Your task to perform on an android device: open device folders in google photos Image 0: 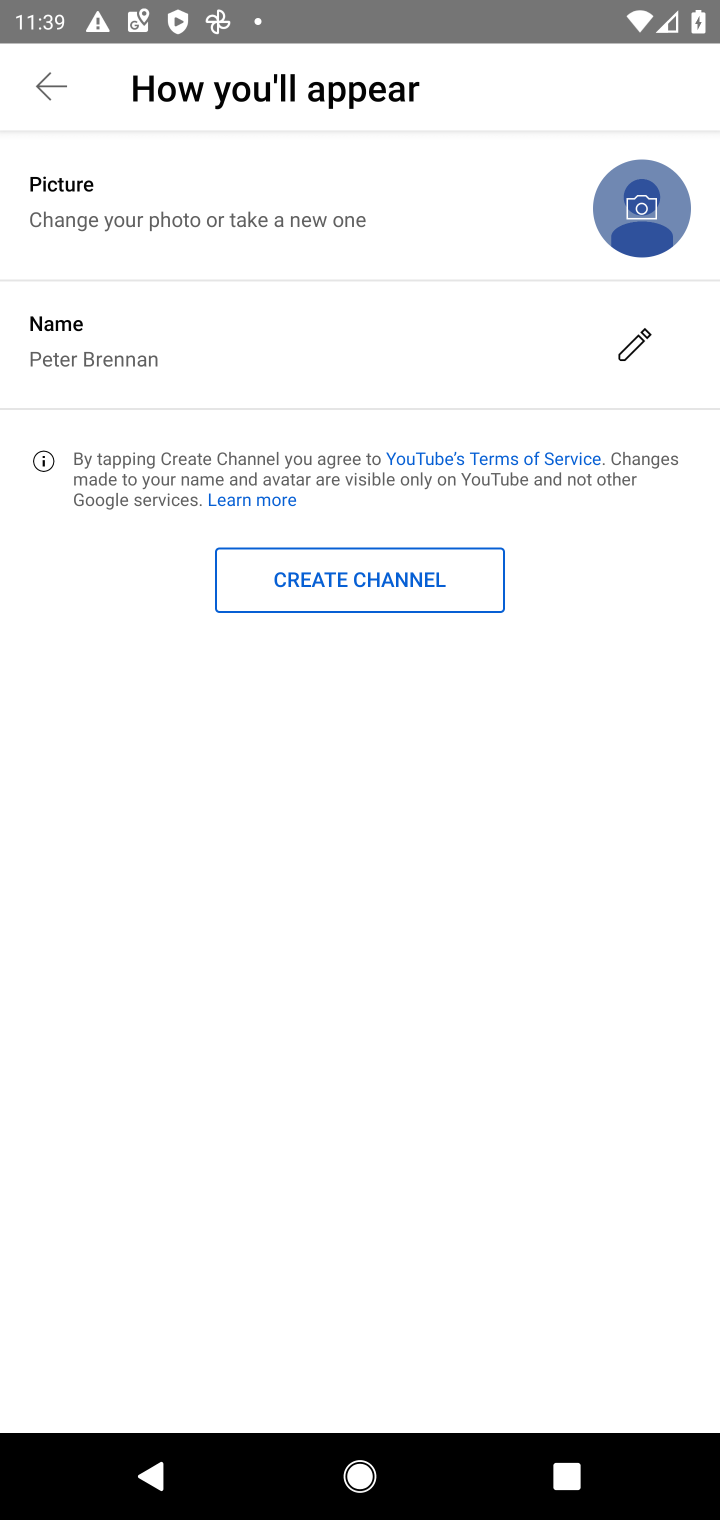
Step 0: press home button
Your task to perform on an android device: open device folders in google photos Image 1: 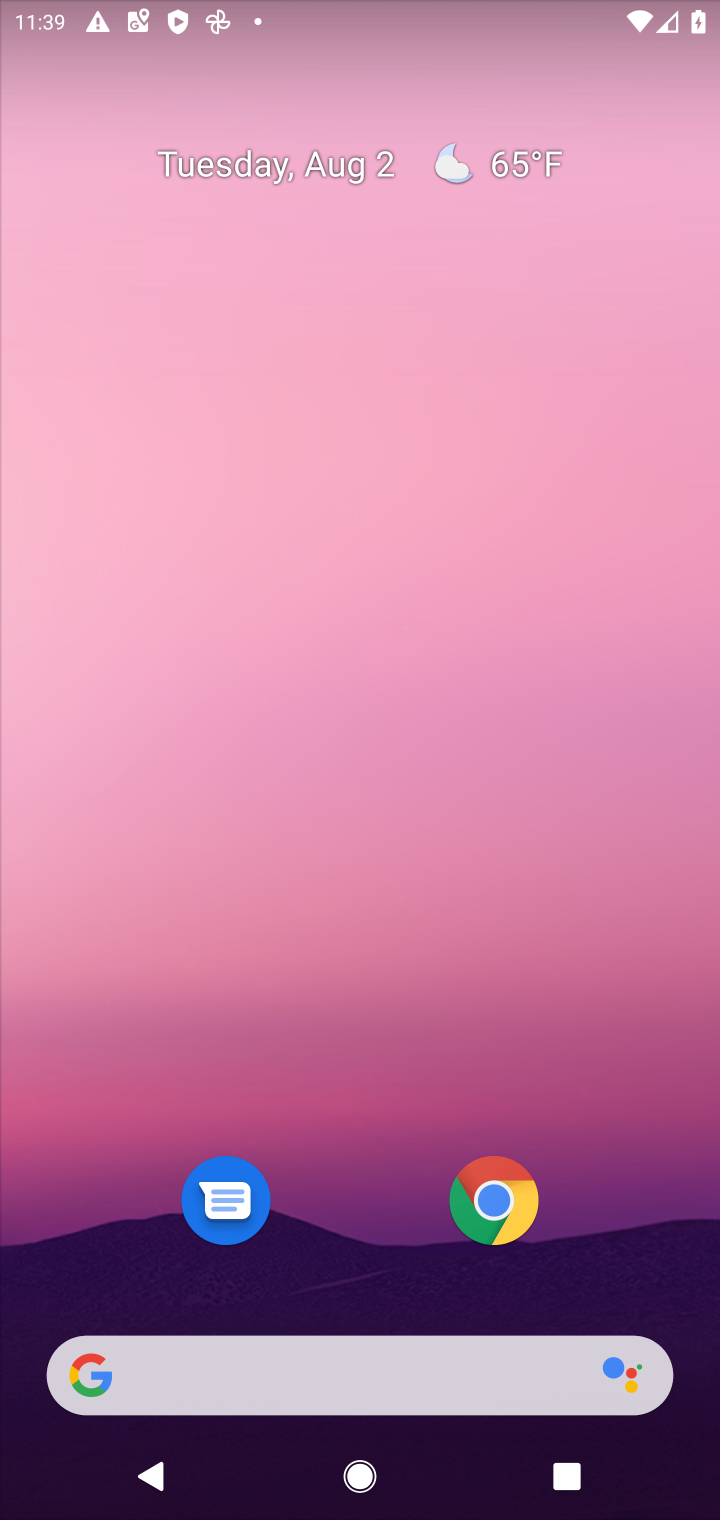
Step 1: drag from (669, 1263) to (508, 378)
Your task to perform on an android device: open device folders in google photos Image 2: 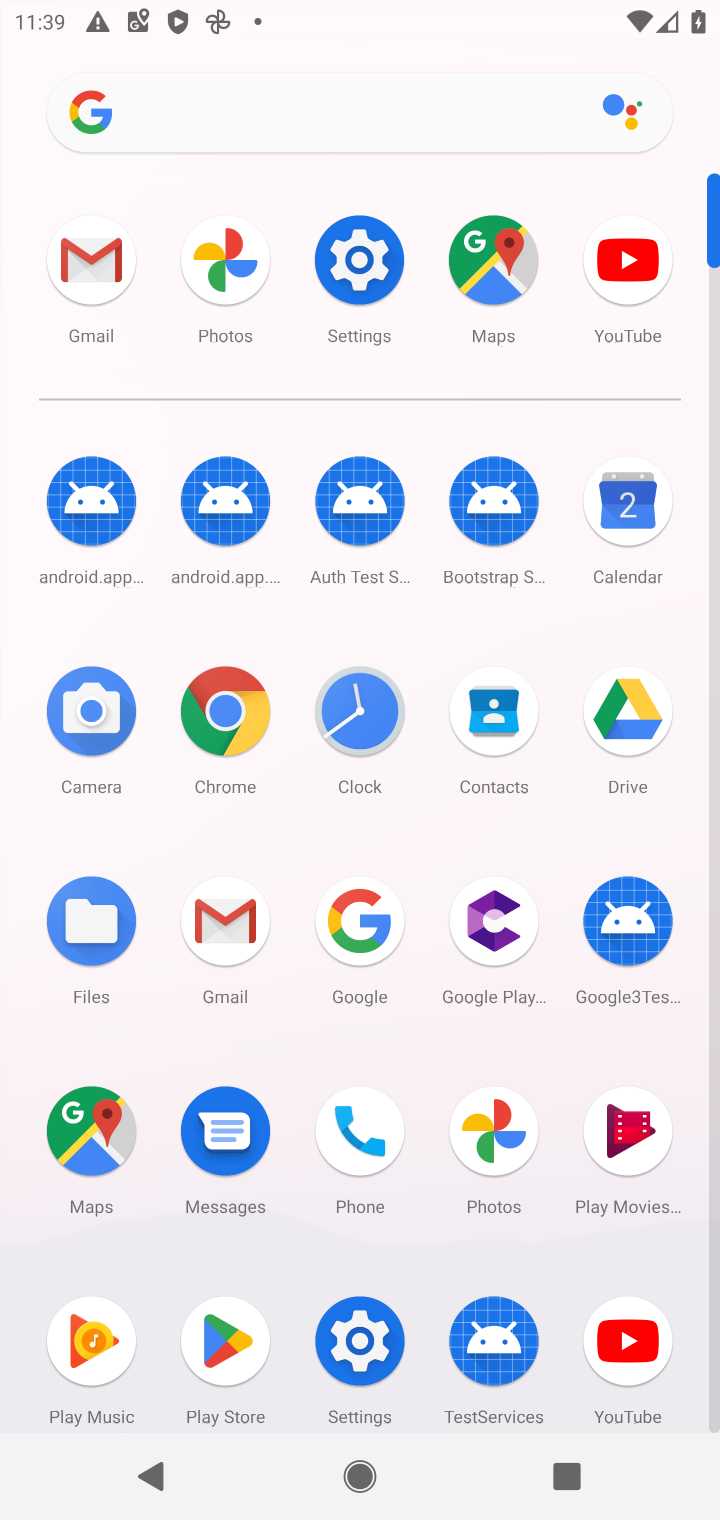
Step 2: click (495, 1125)
Your task to perform on an android device: open device folders in google photos Image 3: 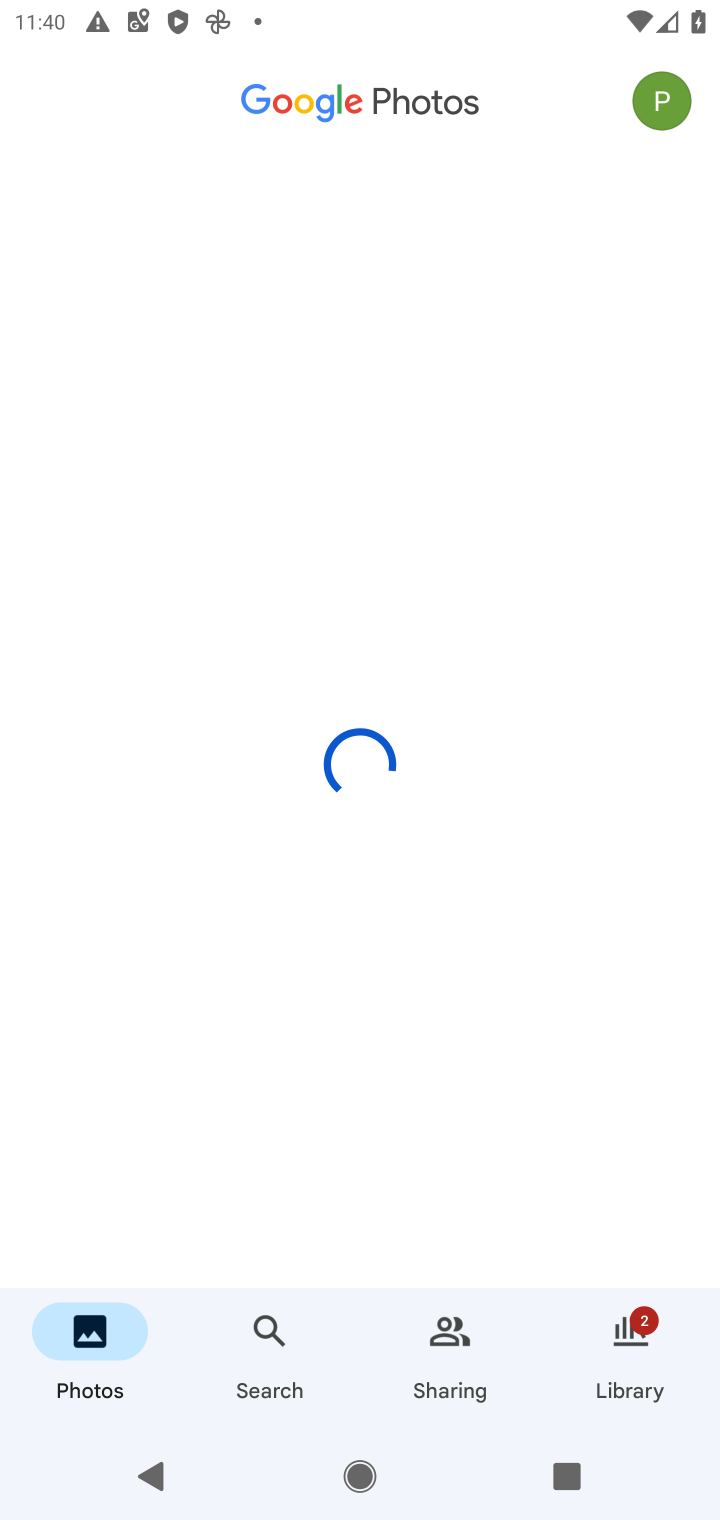
Step 3: click (624, 1331)
Your task to perform on an android device: open device folders in google photos Image 4: 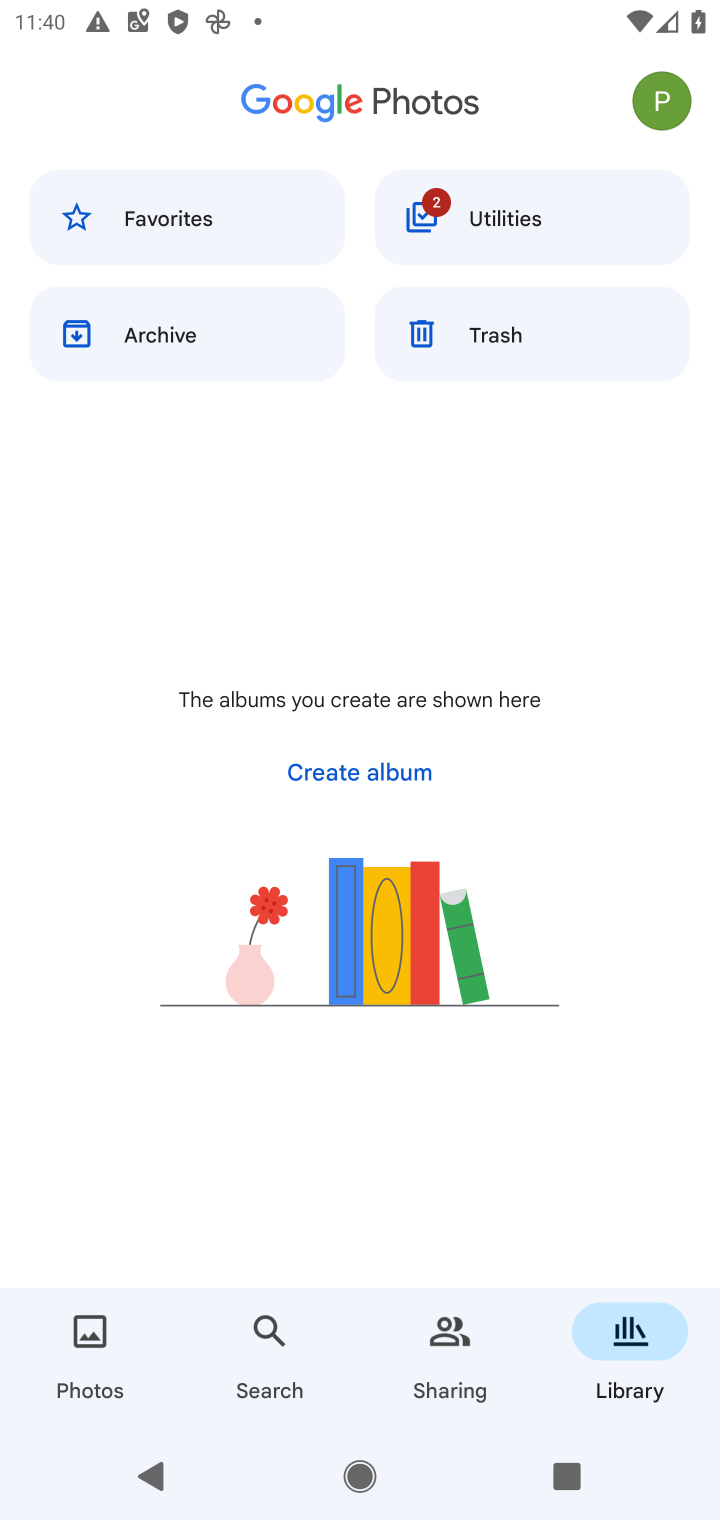
Step 4: task complete